Your task to perform on an android device: Go to notification settings Image 0: 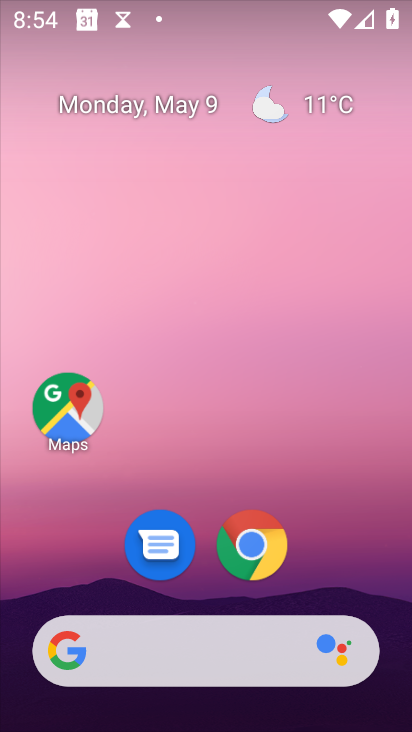
Step 0: drag from (196, 721) to (168, 187)
Your task to perform on an android device: Go to notification settings Image 1: 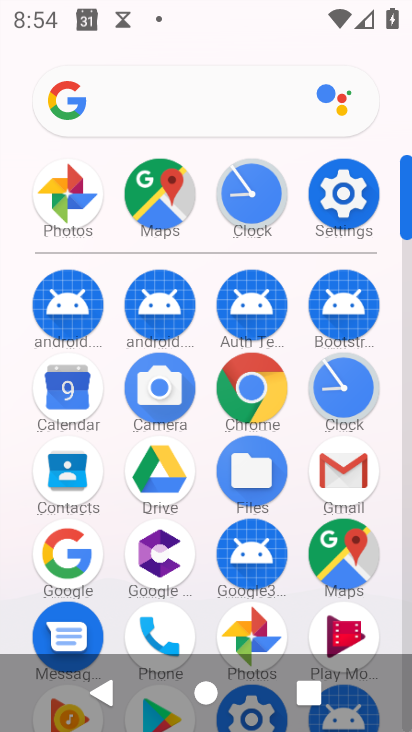
Step 1: click (343, 175)
Your task to perform on an android device: Go to notification settings Image 2: 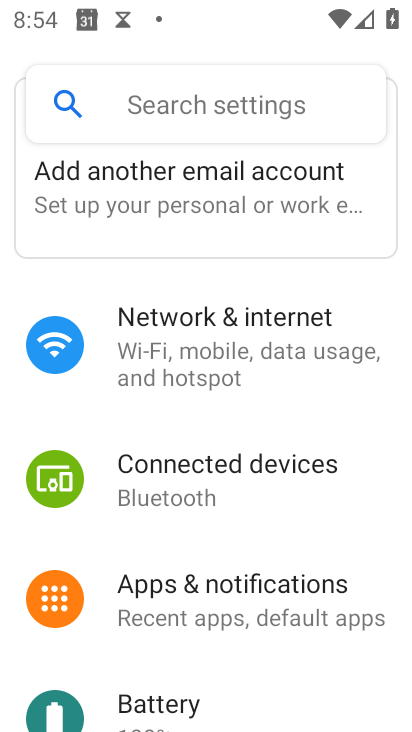
Step 2: click (223, 602)
Your task to perform on an android device: Go to notification settings Image 3: 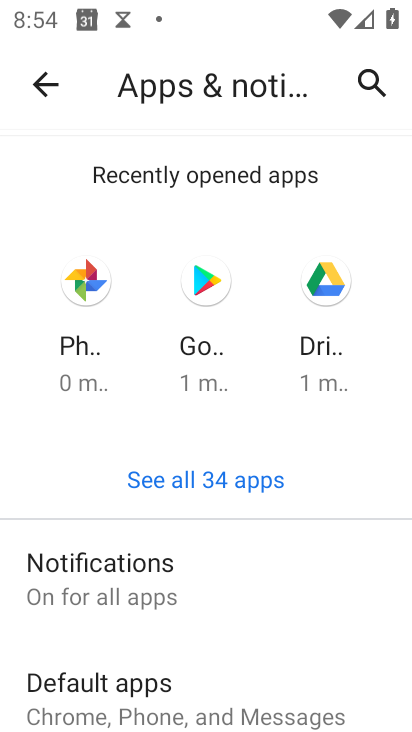
Step 3: click (125, 584)
Your task to perform on an android device: Go to notification settings Image 4: 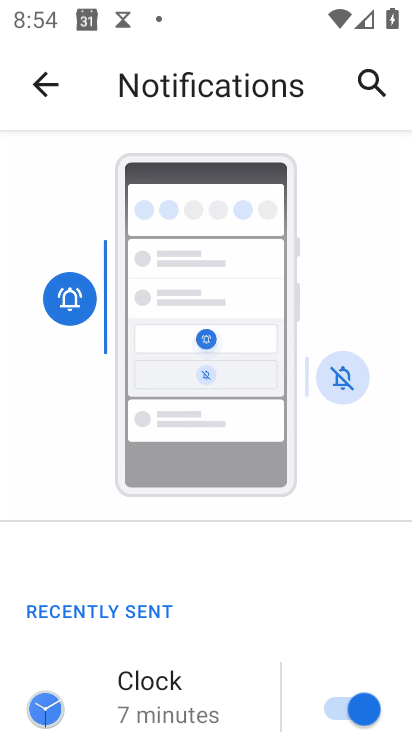
Step 4: task complete